Your task to perform on an android device: toggle data saver in the chrome app Image 0: 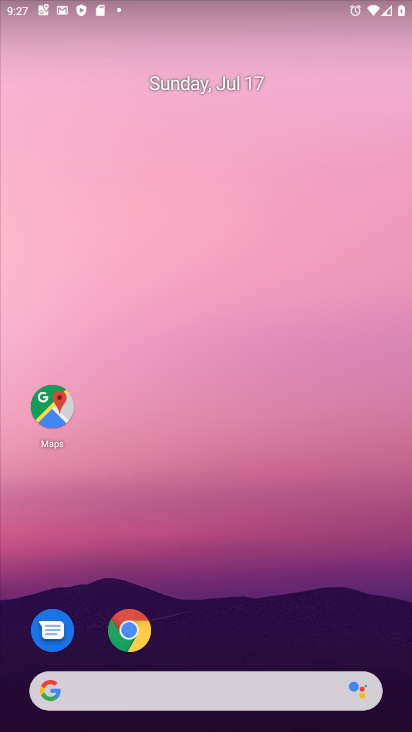
Step 0: drag from (312, 623) to (357, 100)
Your task to perform on an android device: toggle data saver in the chrome app Image 1: 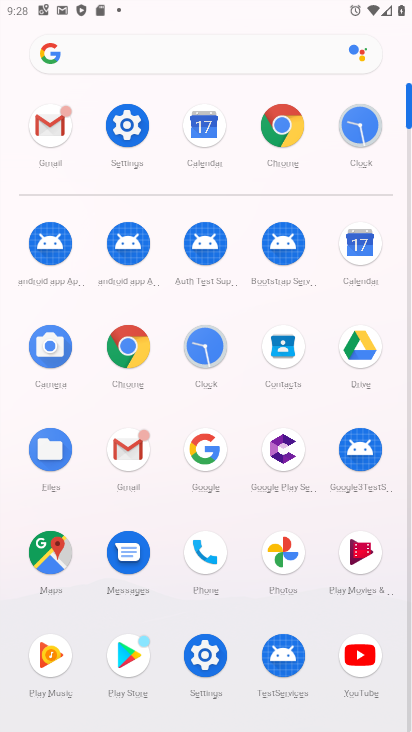
Step 1: click (134, 351)
Your task to perform on an android device: toggle data saver in the chrome app Image 2: 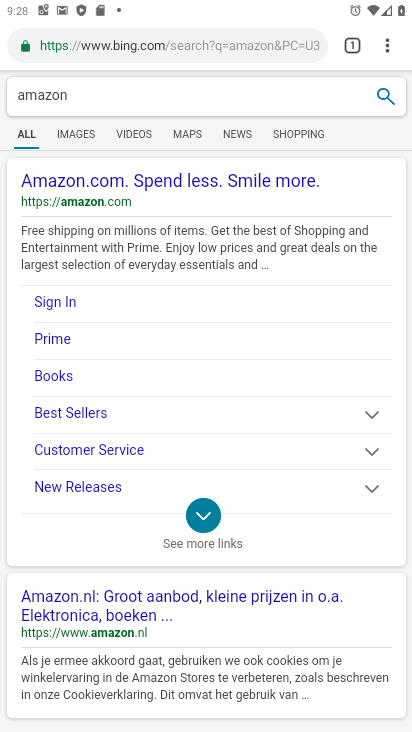
Step 2: click (389, 48)
Your task to perform on an android device: toggle data saver in the chrome app Image 3: 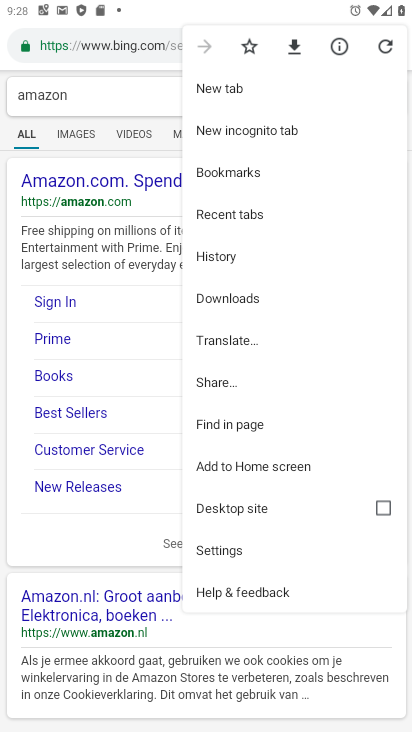
Step 3: click (251, 560)
Your task to perform on an android device: toggle data saver in the chrome app Image 4: 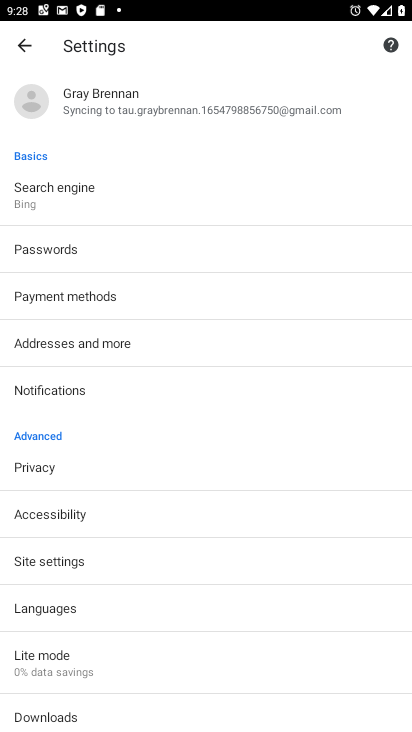
Step 4: drag from (298, 568) to (303, 482)
Your task to perform on an android device: toggle data saver in the chrome app Image 5: 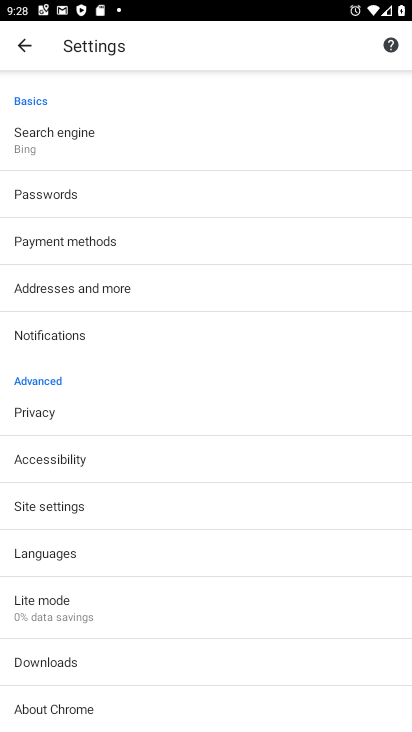
Step 5: drag from (308, 567) to (295, 442)
Your task to perform on an android device: toggle data saver in the chrome app Image 6: 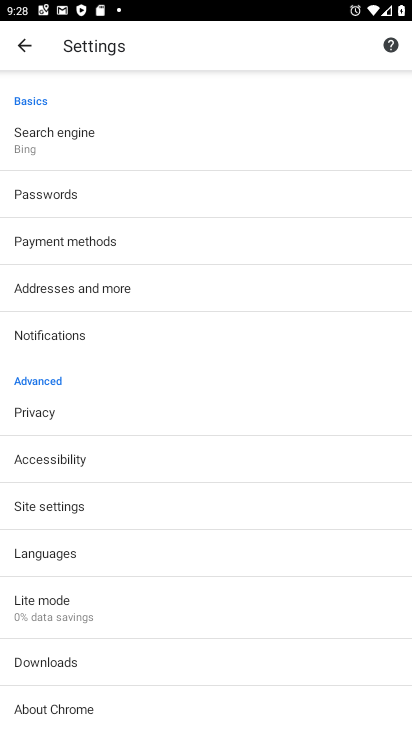
Step 6: click (288, 608)
Your task to perform on an android device: toggle data saver in the chrome app Image 7: 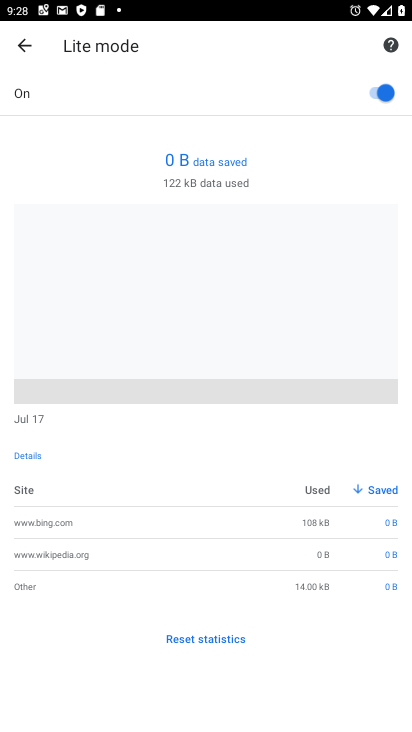
Step 7: click (378, 95)
Your task to perform on an android device: toggle data saver in the chrome app Image 8: 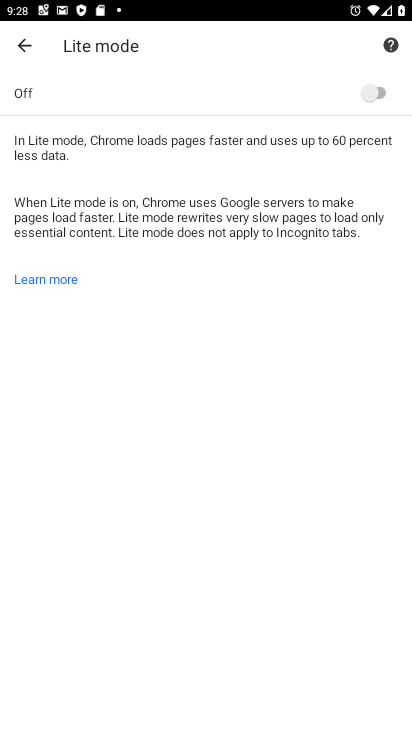
Step 8: task complete